Your task to perform on an android device: Go to Yahoo.com Image 0: 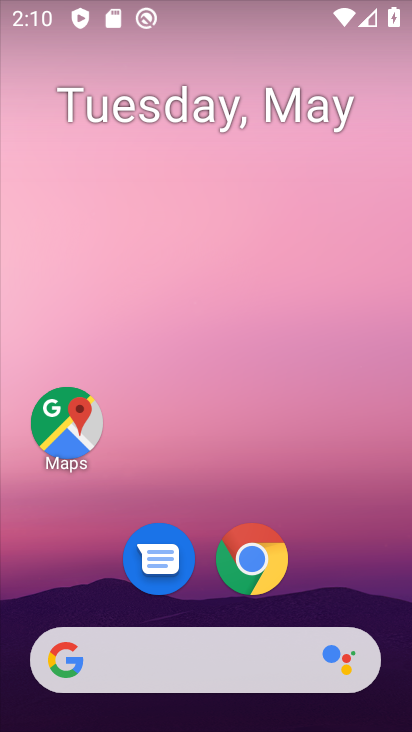
Step 0: click (254, 555)
Your task to perform on an android device: Go to Yahoo.com Image 1: 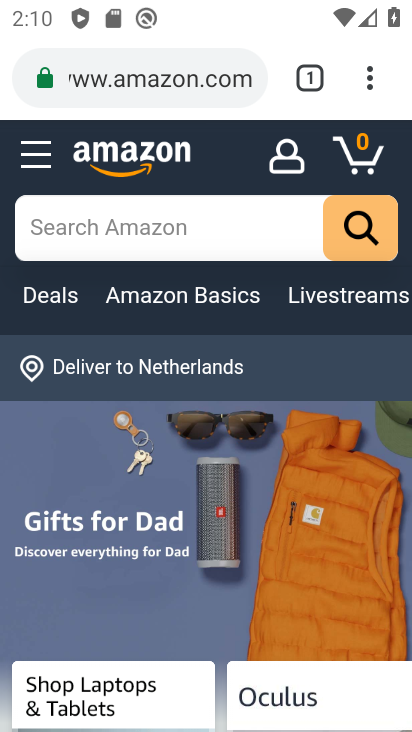
Step 1: click (187, 81)
Your task to perform on an android device: Go to Yahoo.com Image 2: 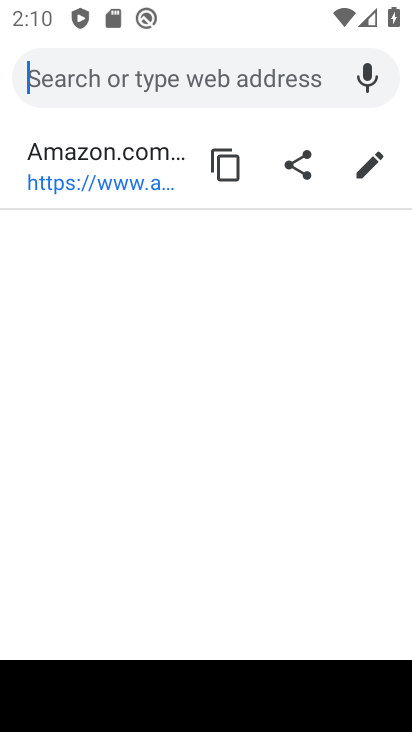
Step 2: type "Yahoo.com"
Your task to perform on an android device: Go to Yahoo.com Image 3: 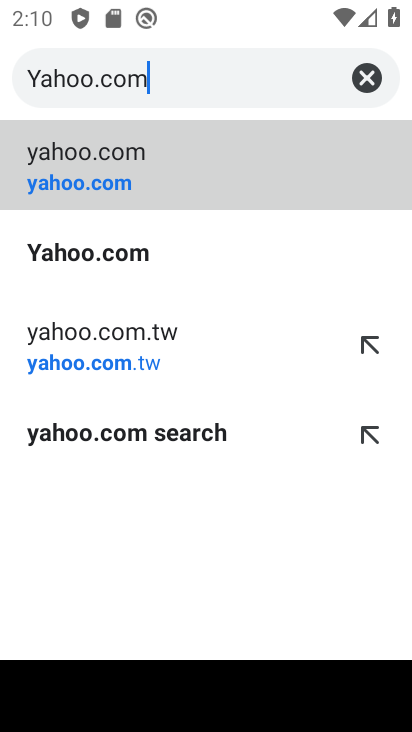
Step 3: click (137, 246)
Your task to perform on an android device: Go to Yahoo.com Image 4: 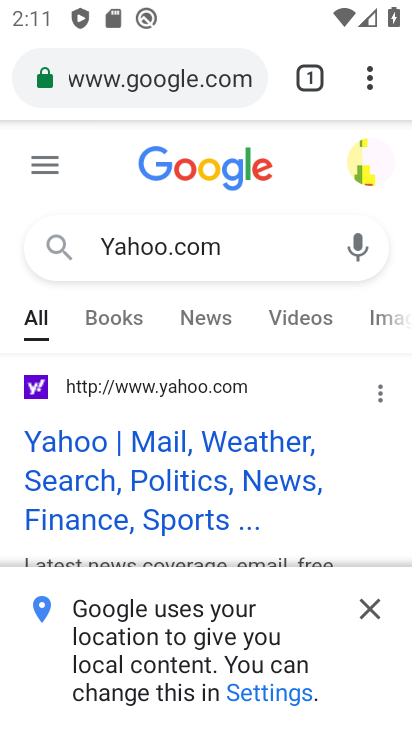
Step 4: click (138, 456)
Your task to perform on an android device: Go to Yahoo.com Image 5: 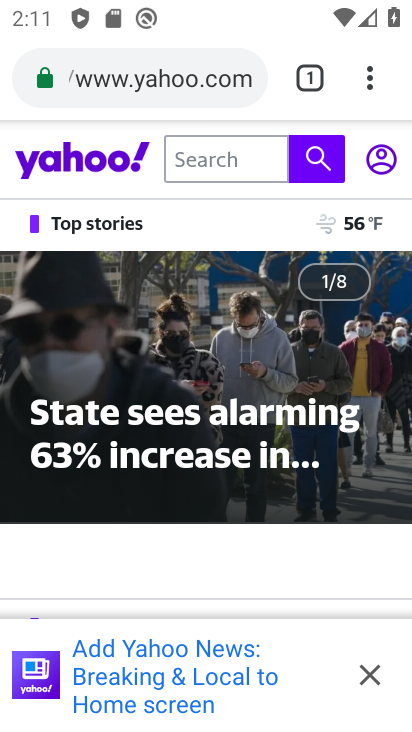
Step 5: task complete